Your task to perform on an android device: change the clock display to analog Image 0: 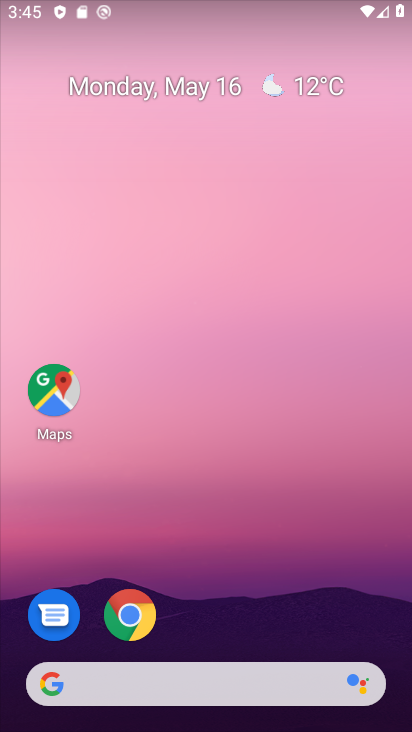
Step 0: drag from (203, 728) to (191, 147)
Your task to perform on an android device: change the clock display to analog Image 1: 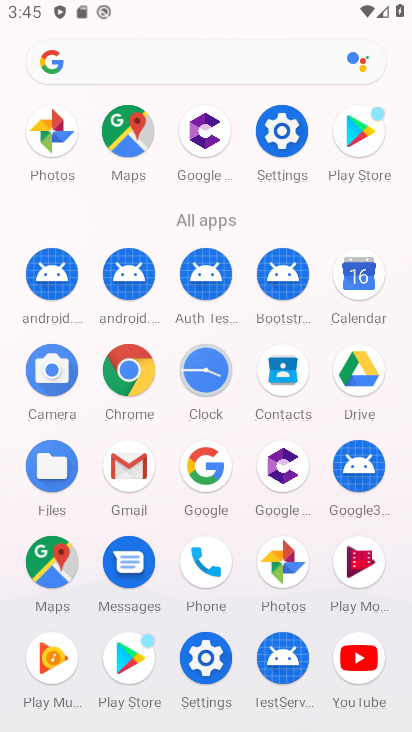
Step 1: click (198, 371)
Your task to perform on an android device: change the clock display to analog Image 2: 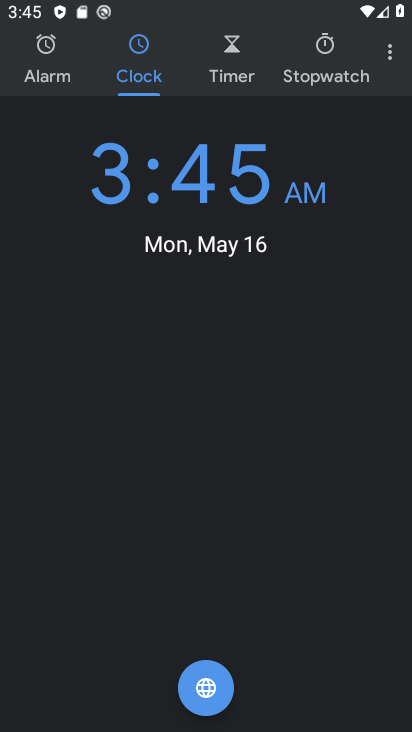
Step 2: click (389, 54)
Your task to perform on an android device: change the clock display to analog Image 3: 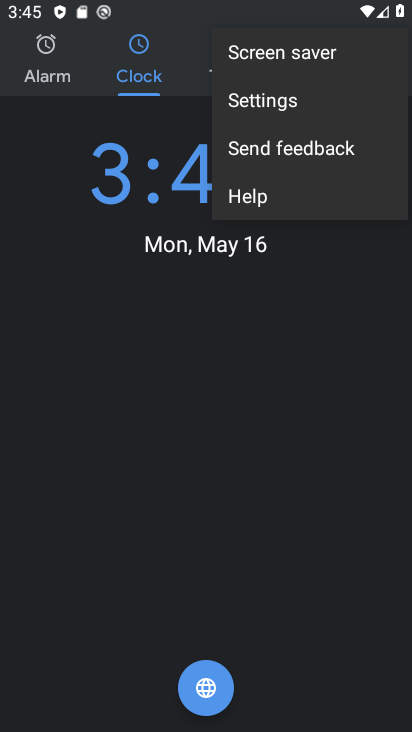
Step 3: click (268, 96)
Your task to perform on an android device: change the clock display to analog Image 4: 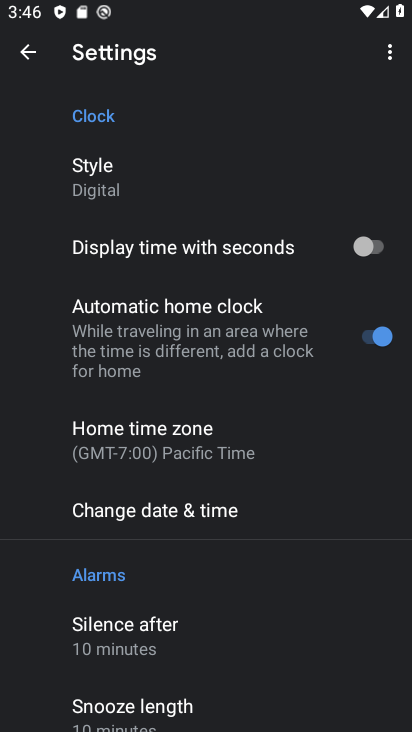
Step 4: click (95, 181)
Your task to perform on an android device: change the clock display to analog Image 5: 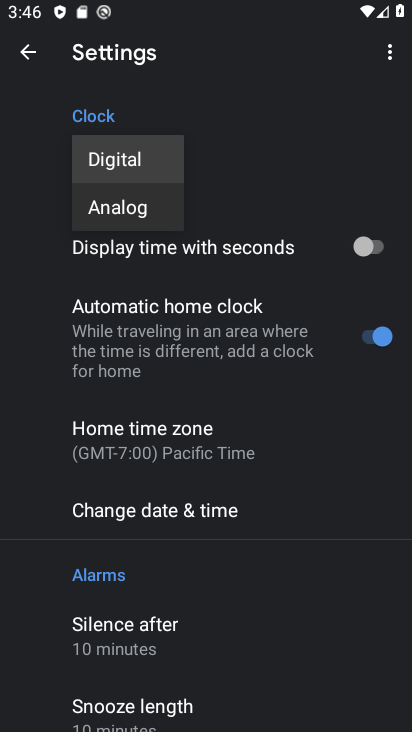
Step 5: click (109, 204)
Your task to perform on an android device: change the clock display to analog Image 6: 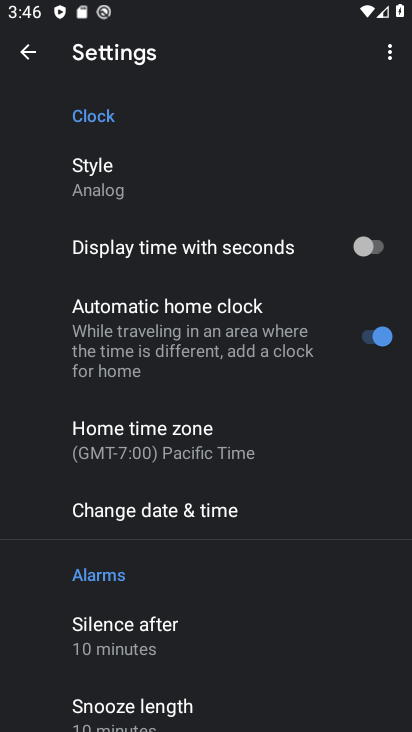
Step 6: task complete